Your task to perform on an android device: Go to network settings Image 0: 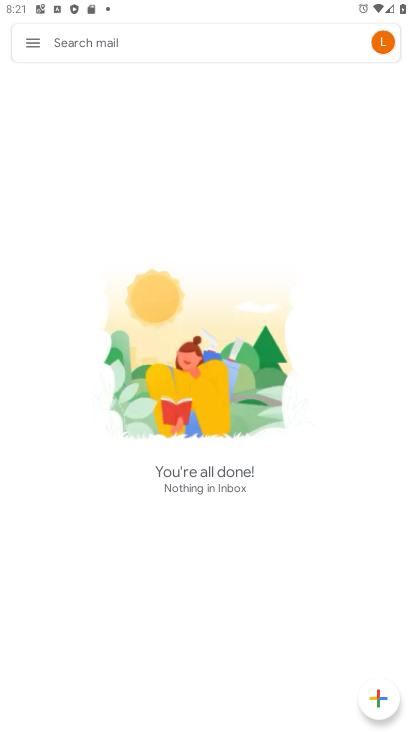
Step 0: press home button
Your task to perform on an android device: Go to network settings Image 1: 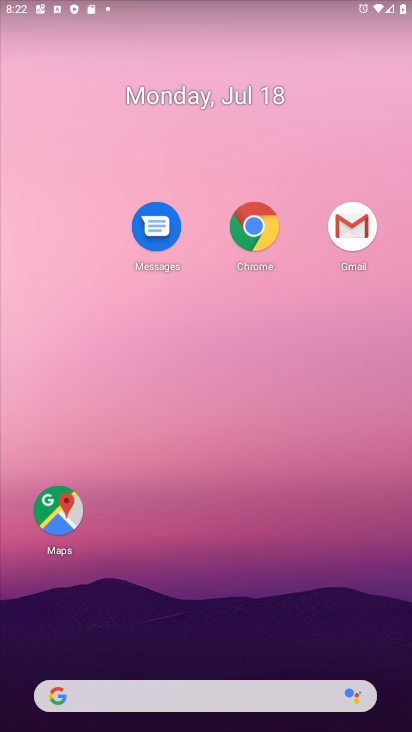
Step 1: drag from (209, 656) to (149, 7)
Your task to perform on an android device: Go to network settings Image 2: 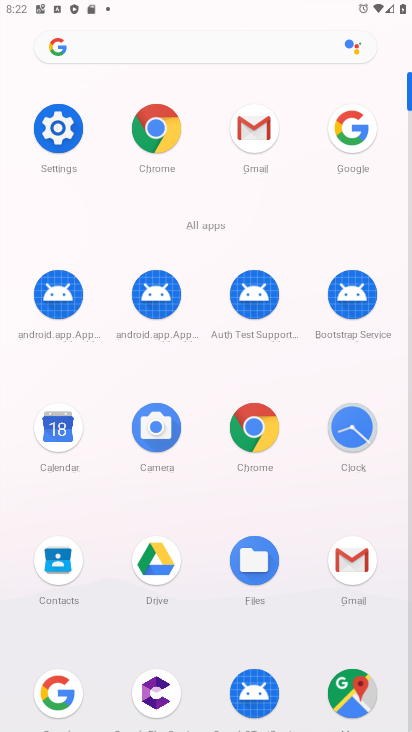
Step 2: click (59, 120)
Your task to perform on an android device: Go to network settings Image 3: 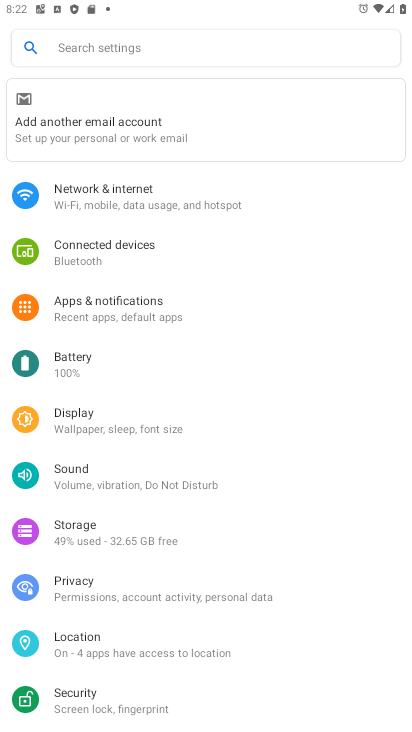
Step 3: click (148, 195)
Your task to perform on an android device: Go to network settings Image 4: 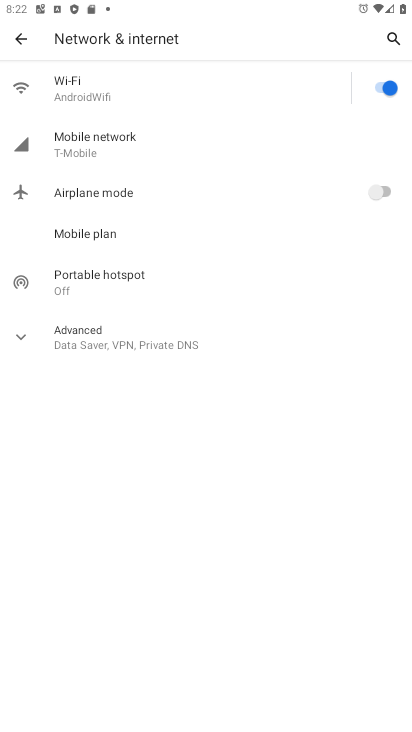
Step 4: click (23, 333)
Your task to perform on an android device: Go to network settings Image 5: 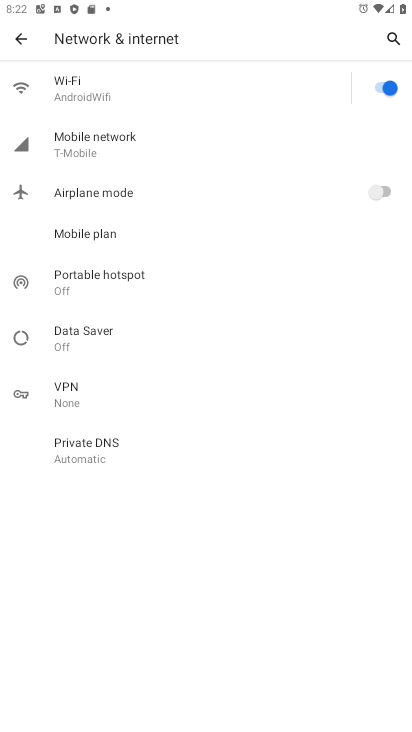
Step 5: task complete